Your task to perform on an android device: toggle sleep mode Image 0: 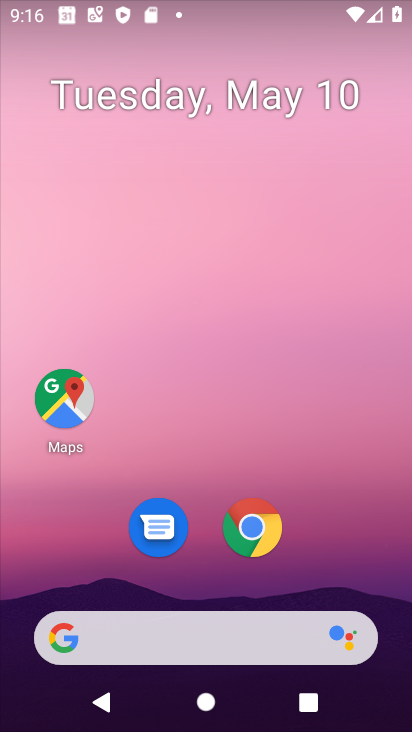
Step 0: drag from (313, 552) to (270, 258)
Your task to perform on an android device: toggle sleep mode Image 1: 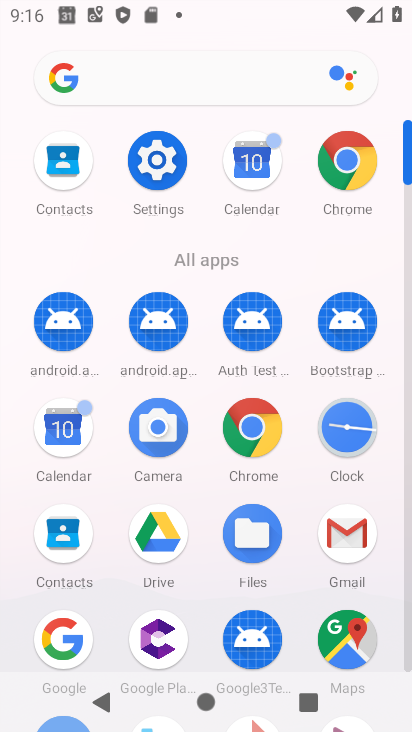
Step 1: click (154, 196)
Your task to perform on an android device: toggle sleep mode Image 2: 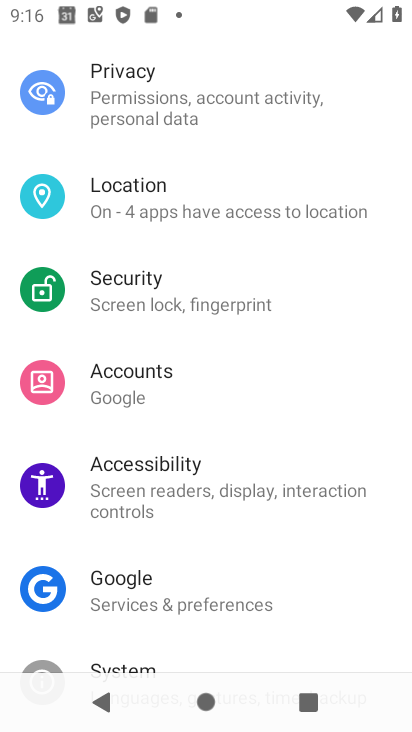
Step 2: task complete